Your task to perform on an android device: What's on my calendar today? Image 0: 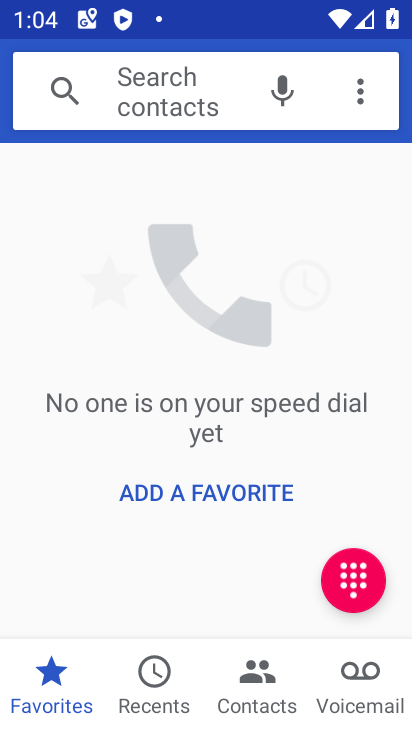
Step 0: press home button
Your task to perform on an android device: What's on my calendar today? Image 1: 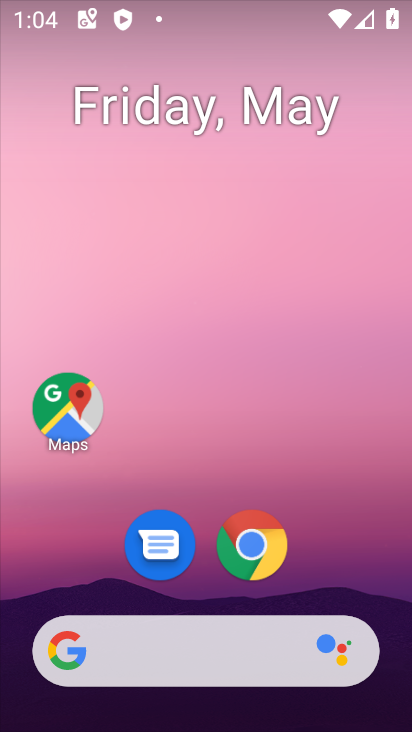
Step 1: drag from (334, 561) to (298, 121)
Your task to perform on an android device: What's on my calendar today? Image 2: 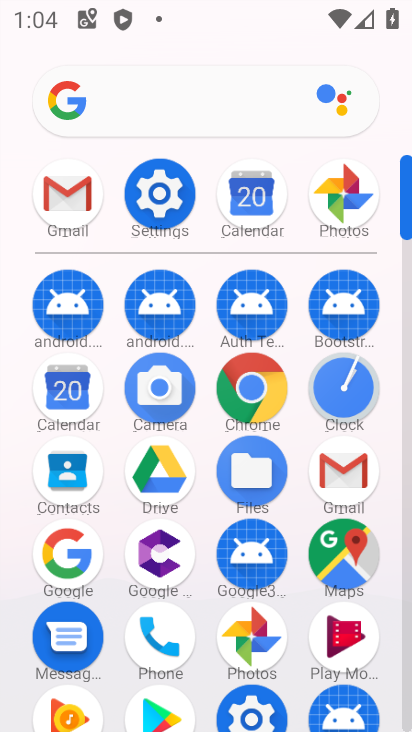
Step 2: click (252, 200)
Your task to perform on an android device: What's on my calendar today? Image 3: 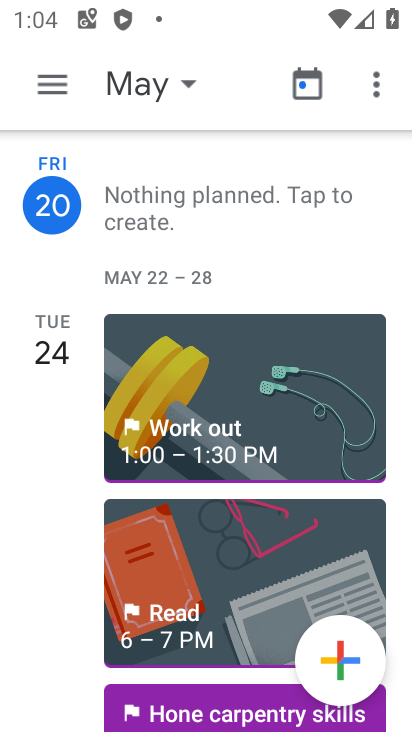
Step 3: click (198, 194)
Your task to perform on an android device: What's on my calendar today? Image 4: 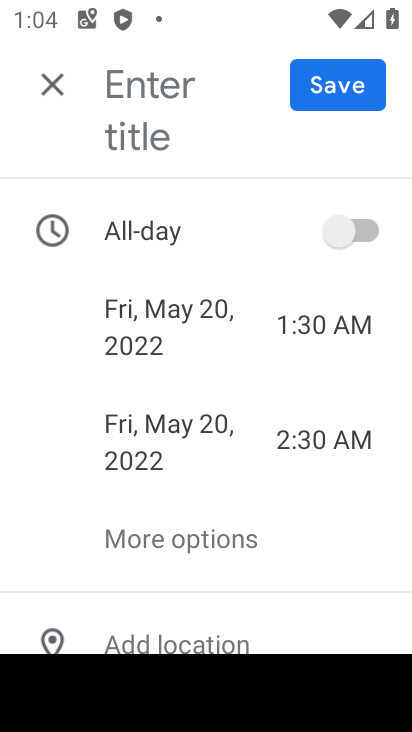
Step 4: click (58, 84)
Your task to perform on an android device: What's on my calendar today? Image 5: 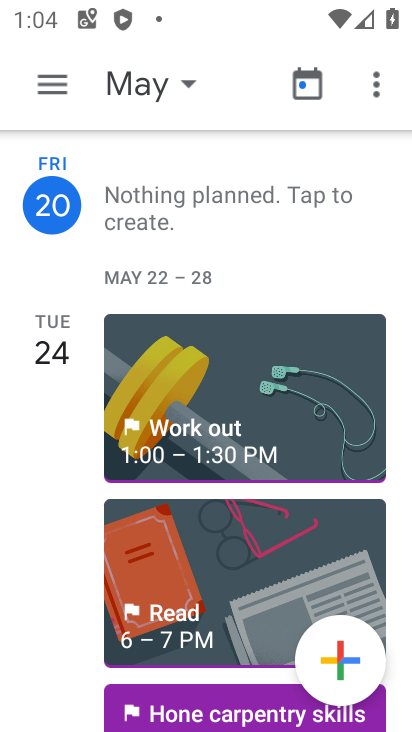
Step 5: task complete